Your task to perform on an android device: change the clock display to show seconds Image 0: 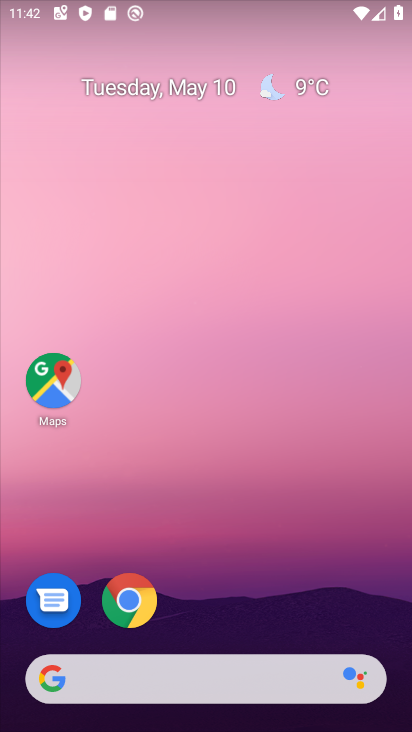
Step 0: drag from (223, 313) to (291, 70)
Your task to perform on an android device: change the clock display to show seconds Image 1: 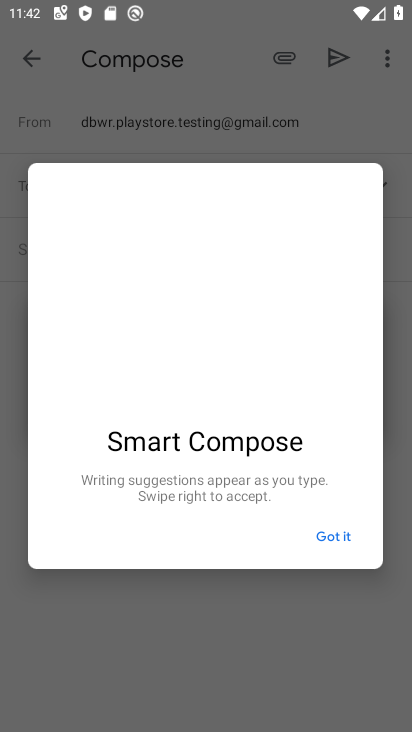
Step 1: press home button
Your task to perform on an android device: change the clock display to show seconds Image 2: 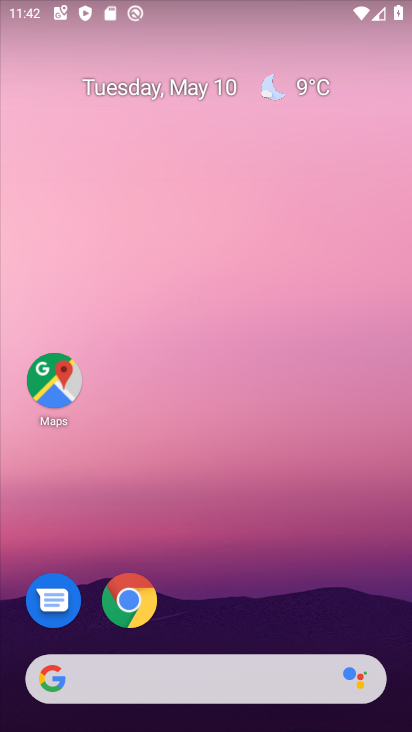
Step 2: drag from (264, 716) to (268, 236)
Your task to perform on an android device: change the clock display to show seconds Image 3: 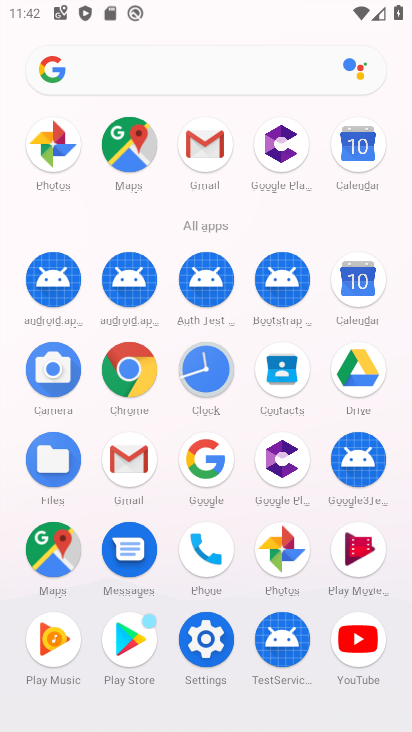
Step 3: click (204, 373)
Your task to perform on an android device: change the clock display to show seconds Image 4: 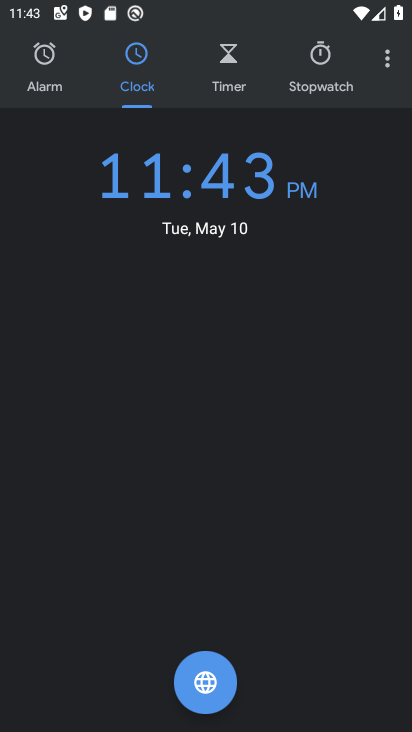
Step 4: click (384, 55)
Your task to perform on an android device: change the clock display to show seconds Image 5: 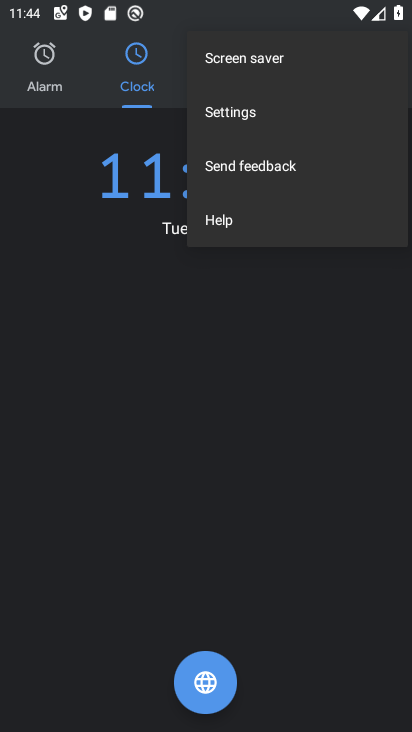
Step 5: click (306, 124)
Your task to perform on an android device: change the clock display to show seconds Image 6: 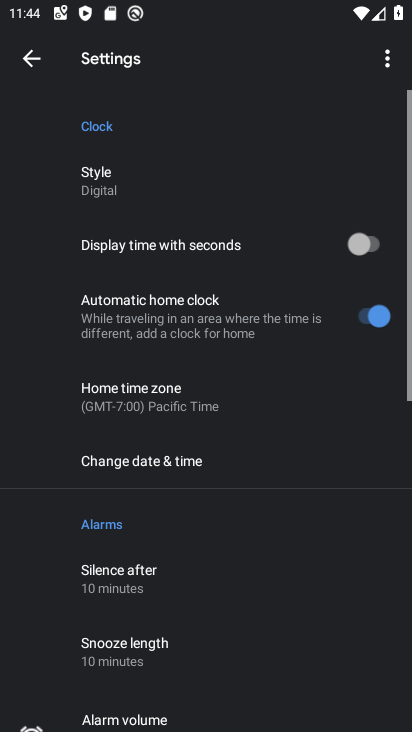
Step 6: click (362, 248)
Your task to perform on an android device: change the clock display to show seconds Image 7: 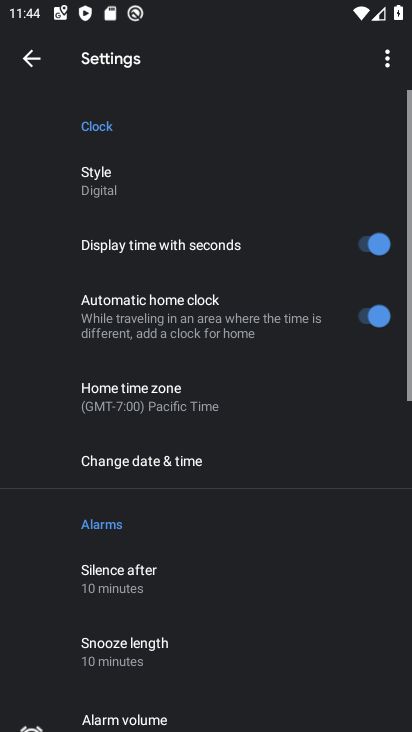
Step 7: task complete